Your task to perform on an android device: delete the emails in spam in the gmail app Image 0: 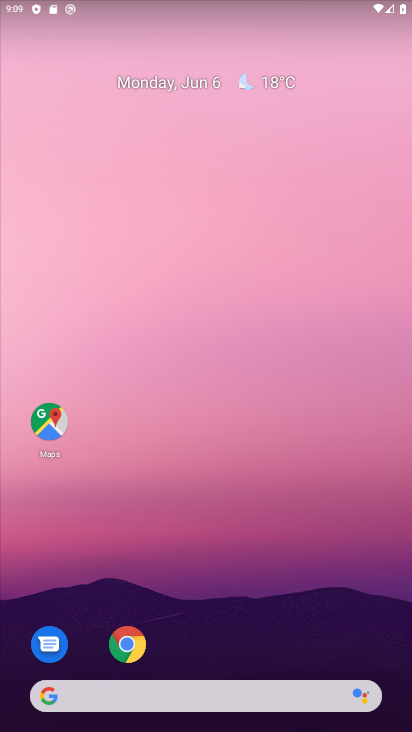
Step 0: drag from (235, 493) to (272, 10)
Your task to perform on an android device: delete the emails in spam in the gmail app Image 1: 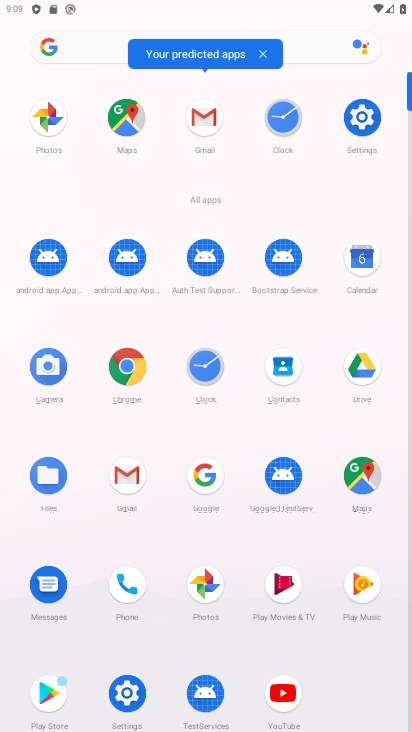
Step 1: click (129, 470)
Your task to perform on an android device: delete the emails in spam in the gmail app Image 2: 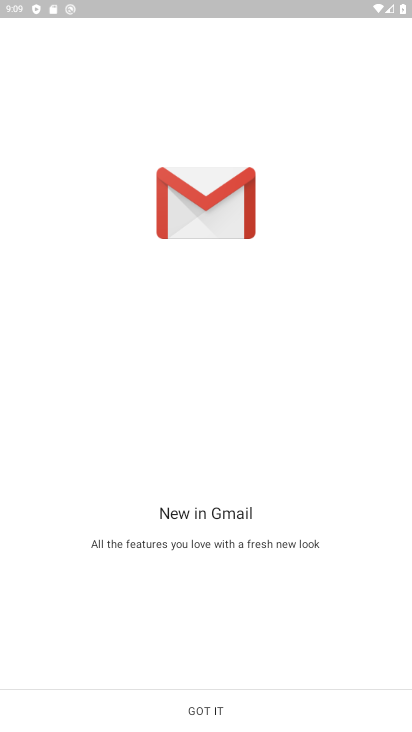
Step 2: click (196, 709)
Your task to perform on an android device: delete the emails in spam in the gmail app Image 3: 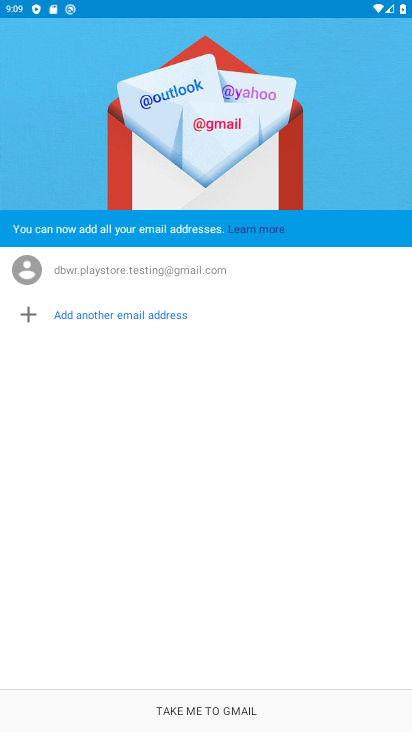
Step 3: click (211, 703)
Your task to perform on an android device: delete the emails in spam in the gmail app Image 4: 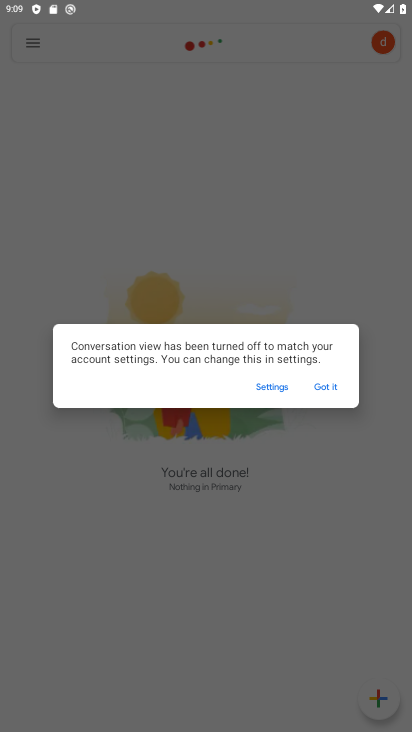
Step 4: click (323, 393)
Your task to perform on an android device: delete the emails in spam in the gmail app Image 5: 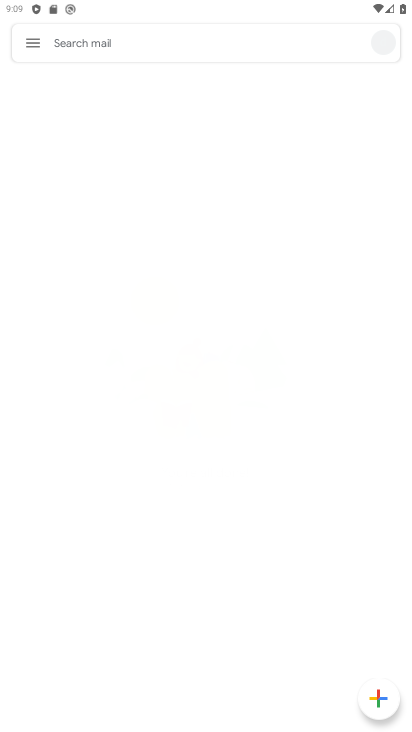
Step 5: click (27, 41)
Your task to perform on an android device: delete the emails in spam in the gmail app Image 6: 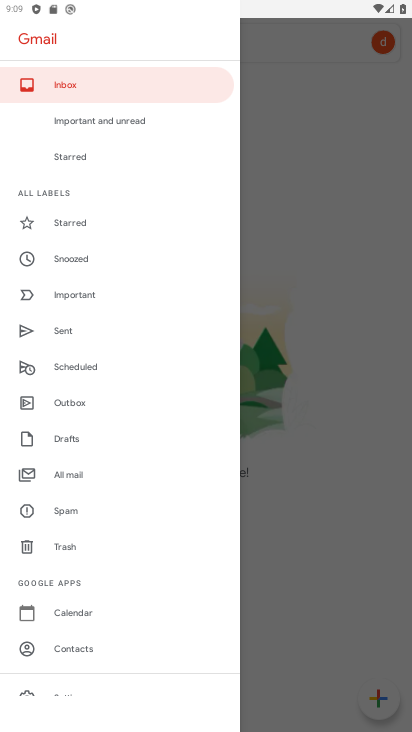
Step 6: click (106, 509)
Your task to perform on an android device: delete the emails in spam in the gmail app Image 7: 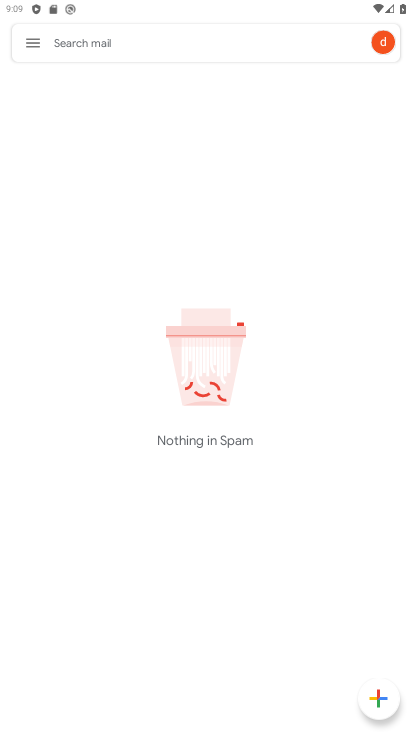
Step 7: task complete